Your task to perform on an android device: Open Google Chrome and click the shortcut for Amazon.com Image 0: 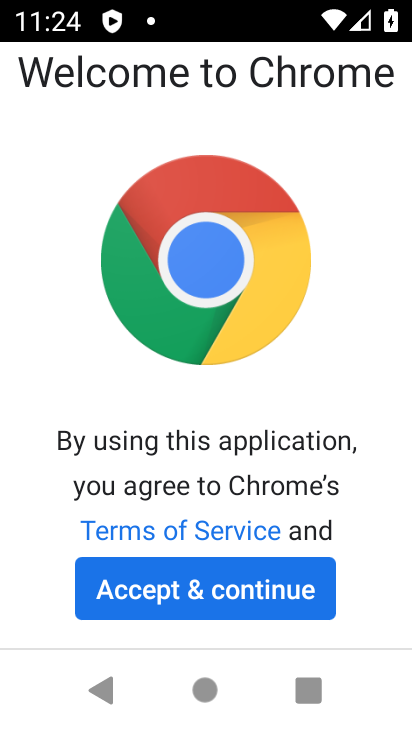
Step 0: press home button
Your task to perform on an android device: Open Google Chrome and click the shortcut for Amazon.com Image 1: 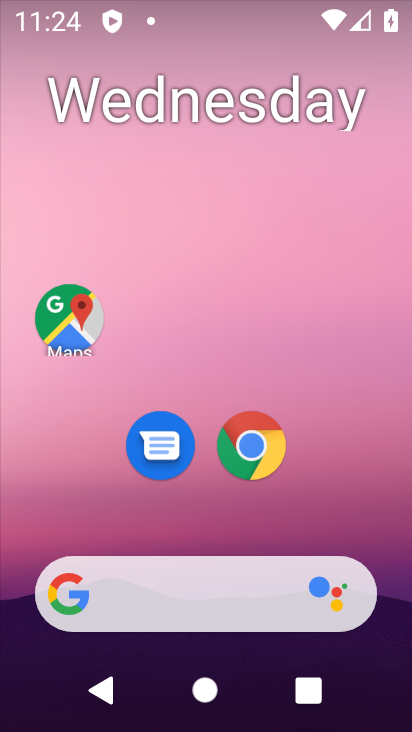
Step 1: drag from (319, 474) to (286, 174)
Your task to perform on an android device: Open Google Chrome and click the shortcut for Amazon.com Image 2: 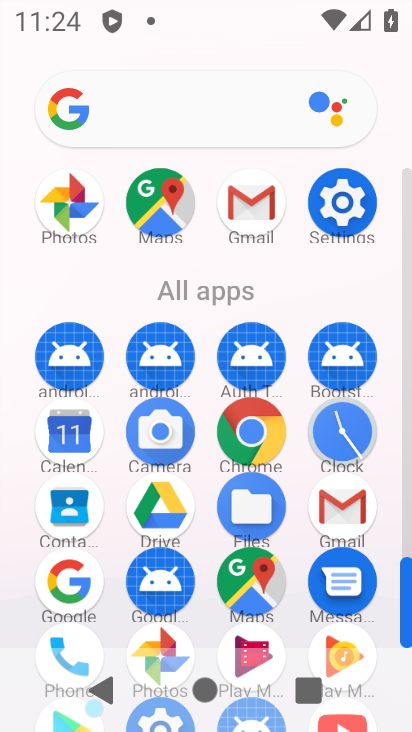
Step 2: click (265, 422)
Your task to perform on an android device: Open Google Chrome and click the shortcut for Amazon.com Image 3: 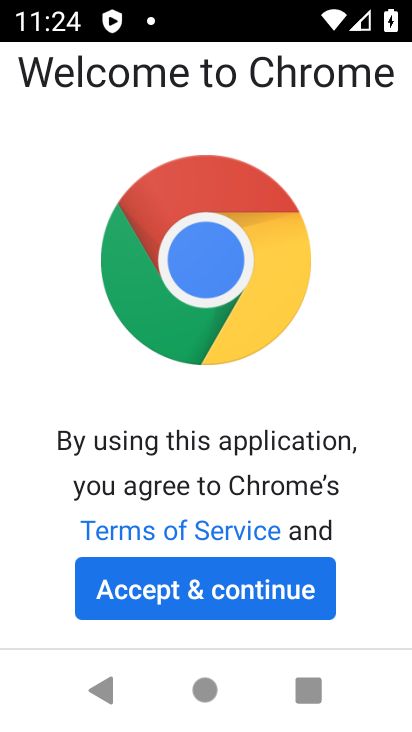
Step 3: click (184, 586)
Your task to perform on an android device: Open Google Chrome and click the shortcut for Amazon.com Image 4: 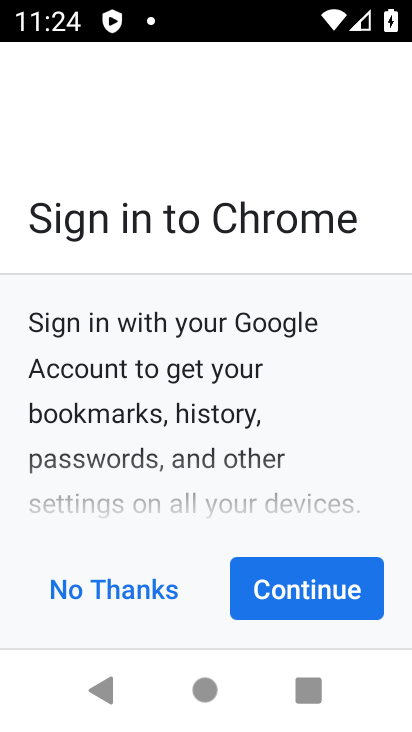
Step 4: click (129, 587)
Your task to perform on an android device: Open Google Chrome and click the shortcut for Amazon.com Image 5: 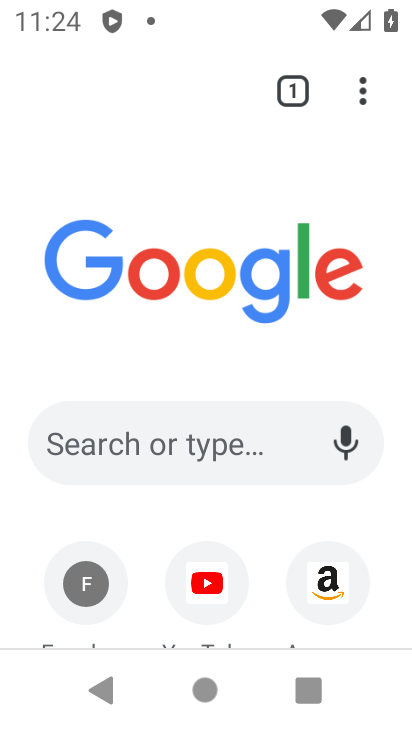
Step 5: click (319, 585)
Your task to perform on an android device: Open Google Chrome and click the shortcut for Amazon.com Image 6: 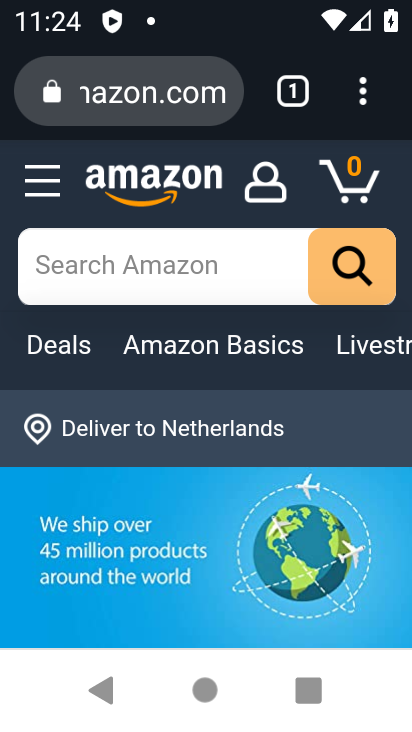
Step 6: task complete